Your task to perform on an android device: star an email in the gmail app Image 0: 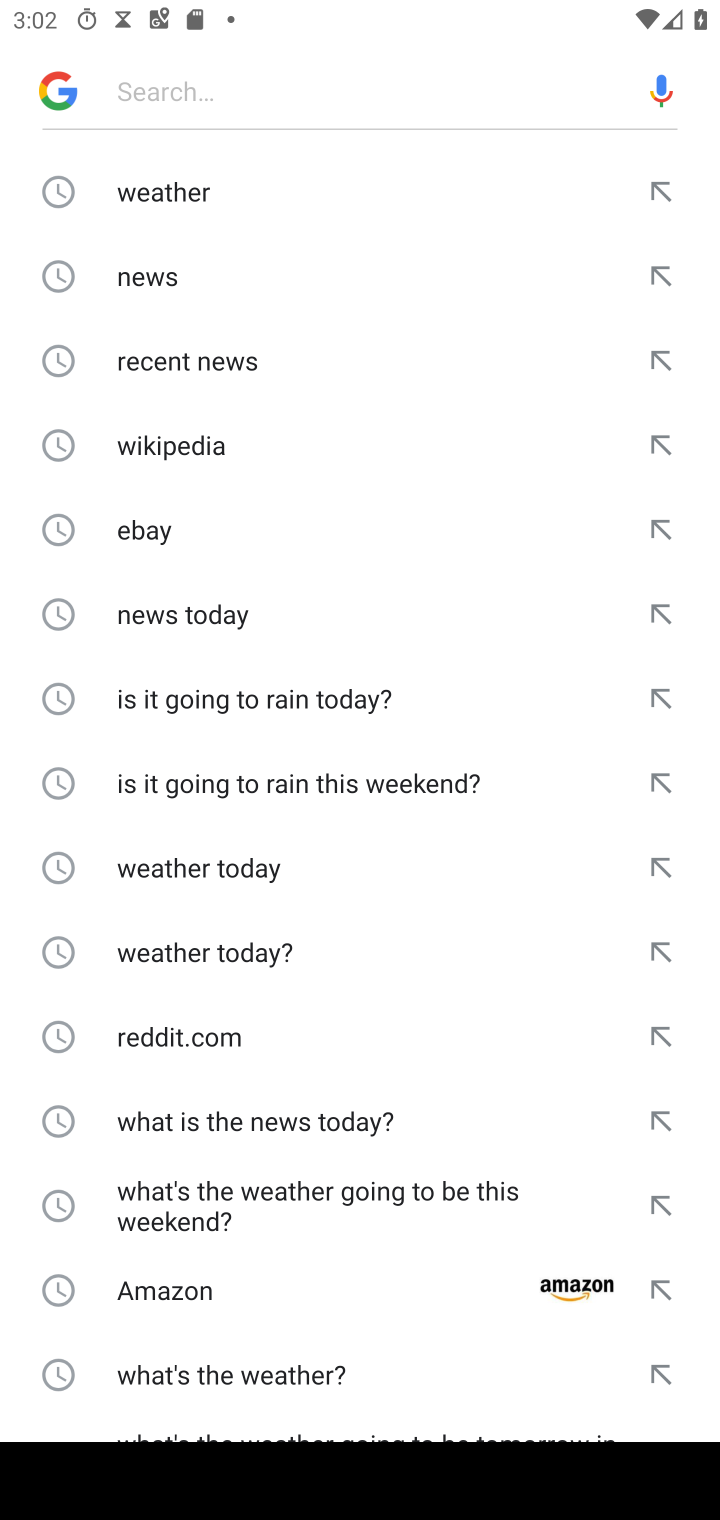
Step 0: press home button
Your task to perform on an android device: star an email in the gmail app Image 1: 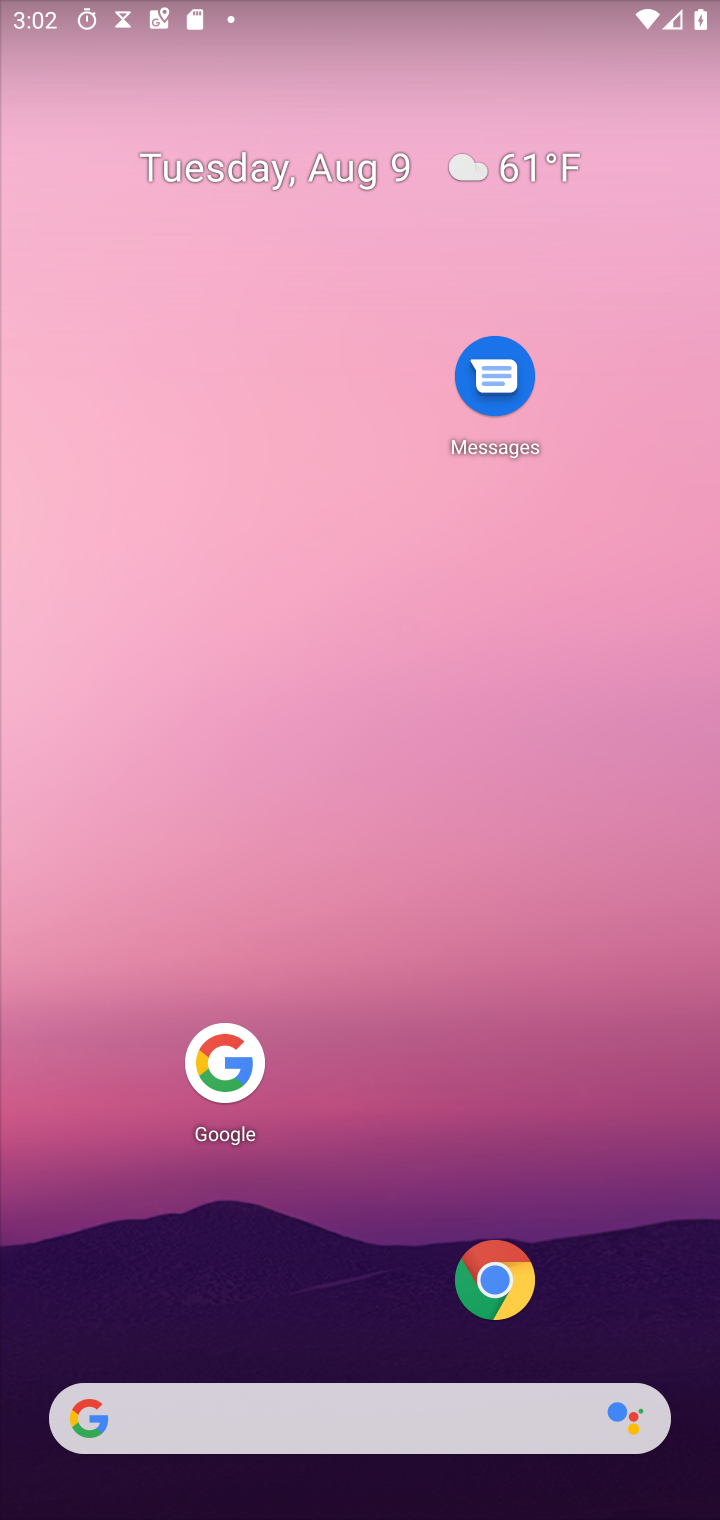
Step 1: drag from (358, 1420) to (516, 297)
Your task to perform on an android device: star an email in the gmail app Image 2: 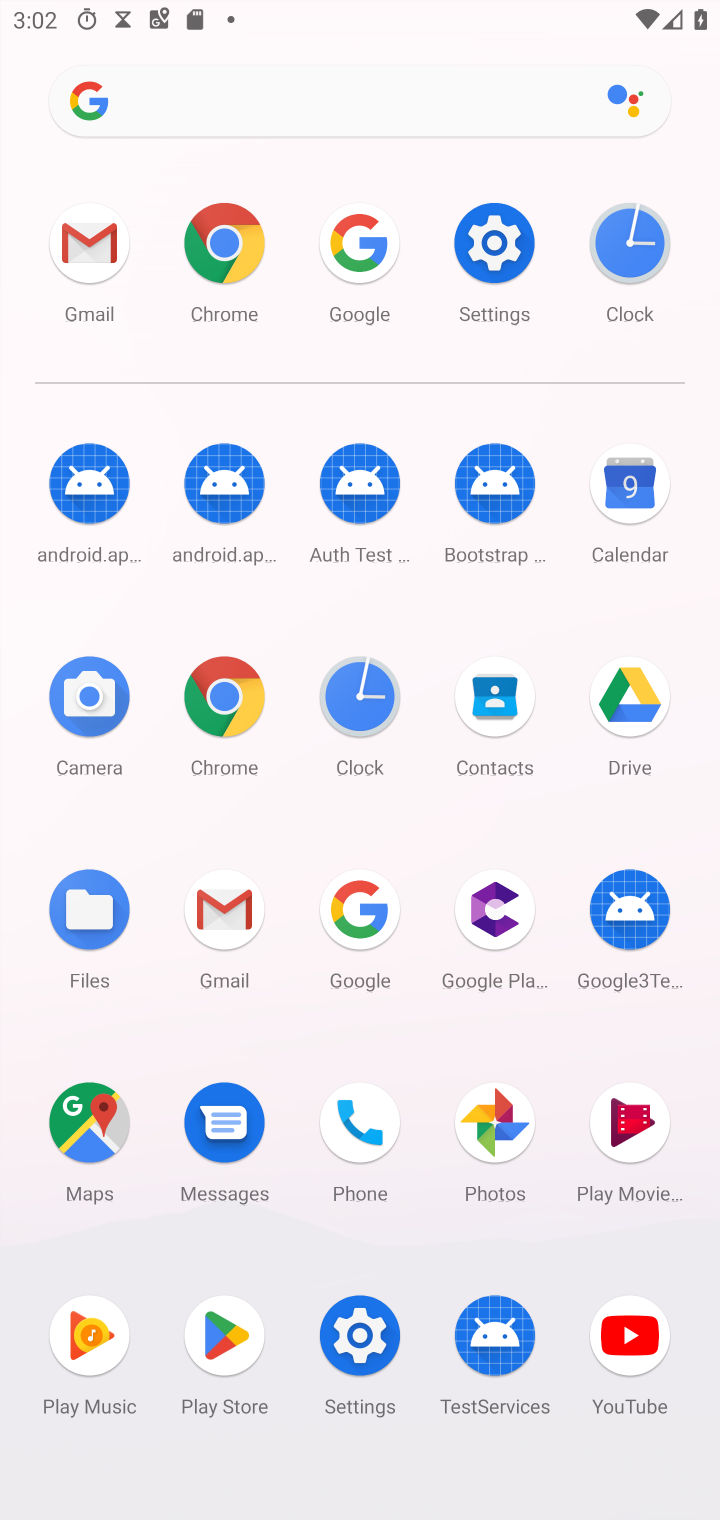
Step 2: click (89, 249)
Your task to perform on an android device: star an email in the gmail app Image 3: 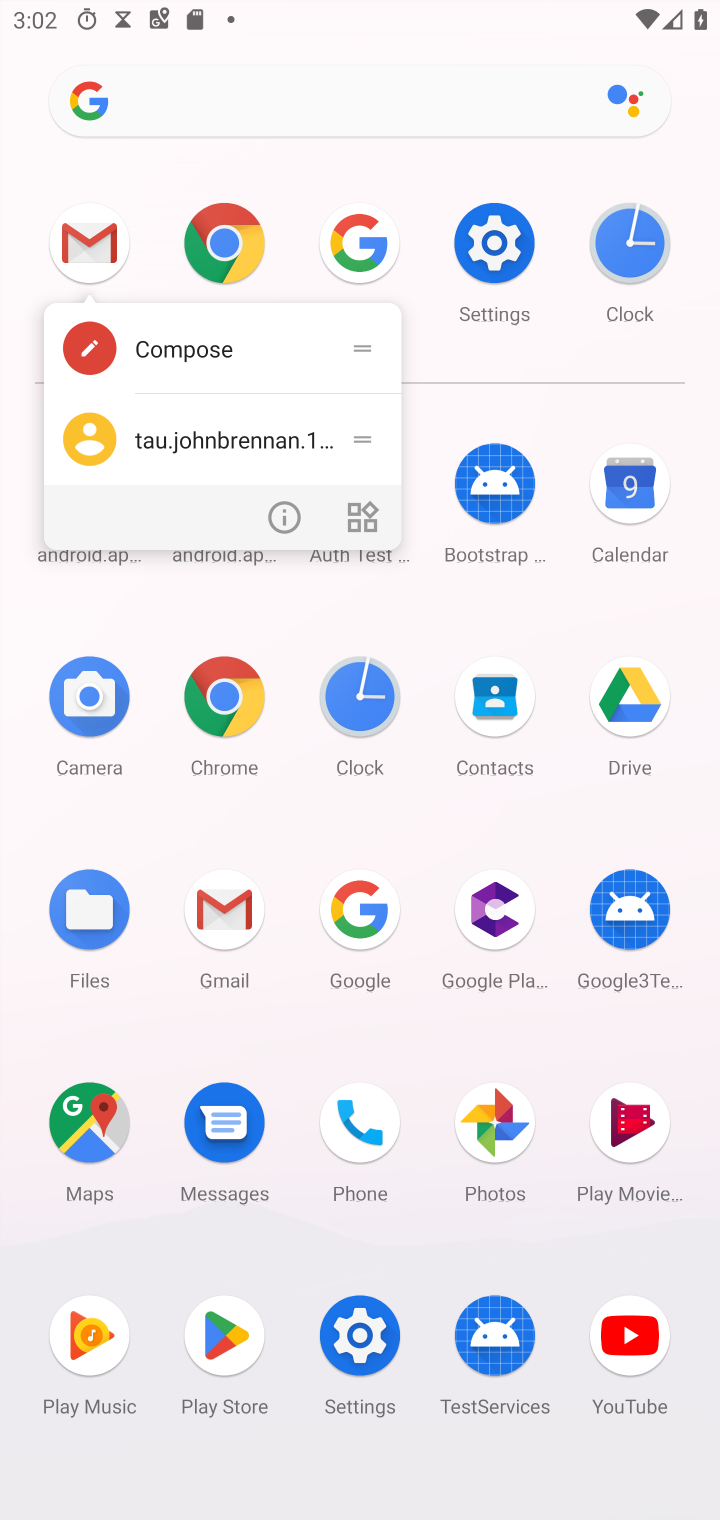
Step 3: click (89, 251)
Your task to perform on an android device: star an email in the gmail app Image 4: 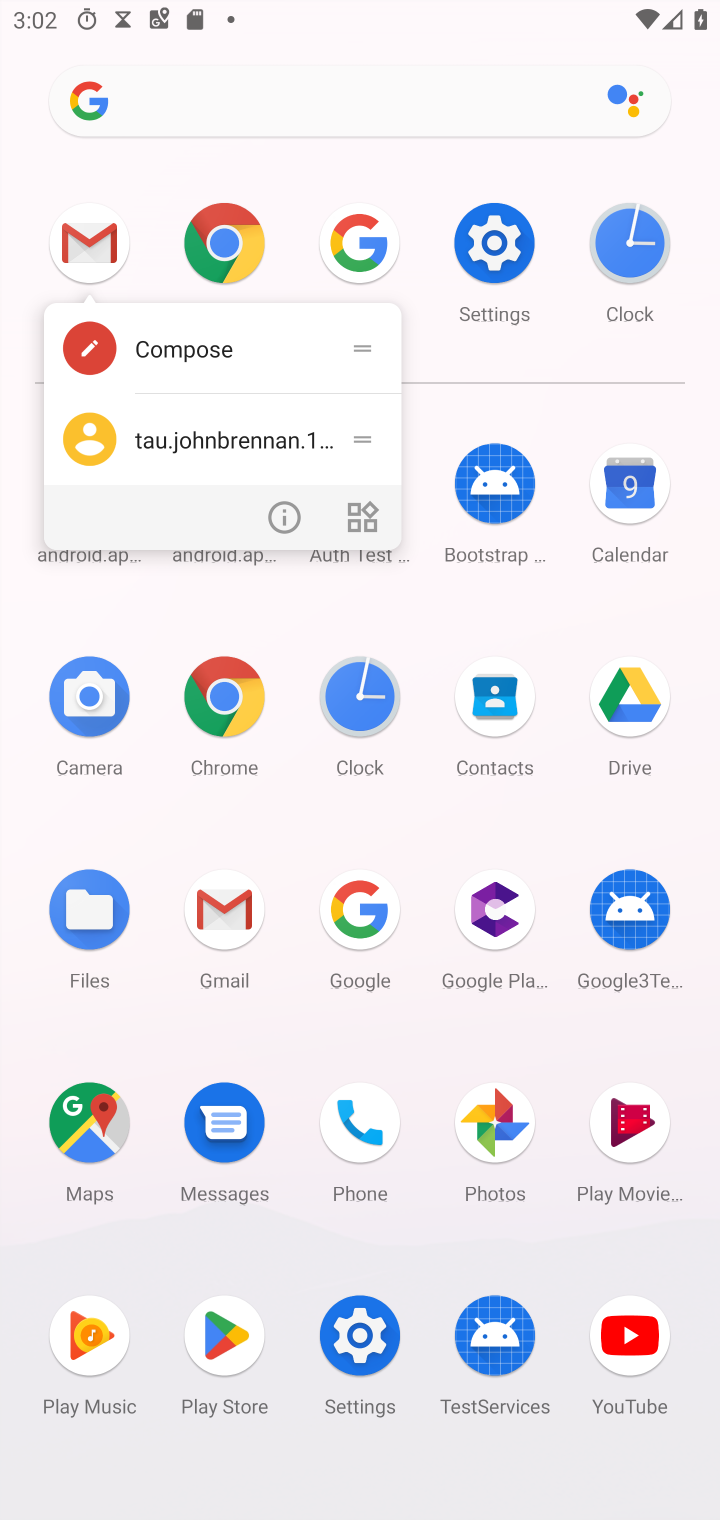
Step 4: click (78, 255)
Your task to perform on an android device: star an email in the gmail app Image 5: 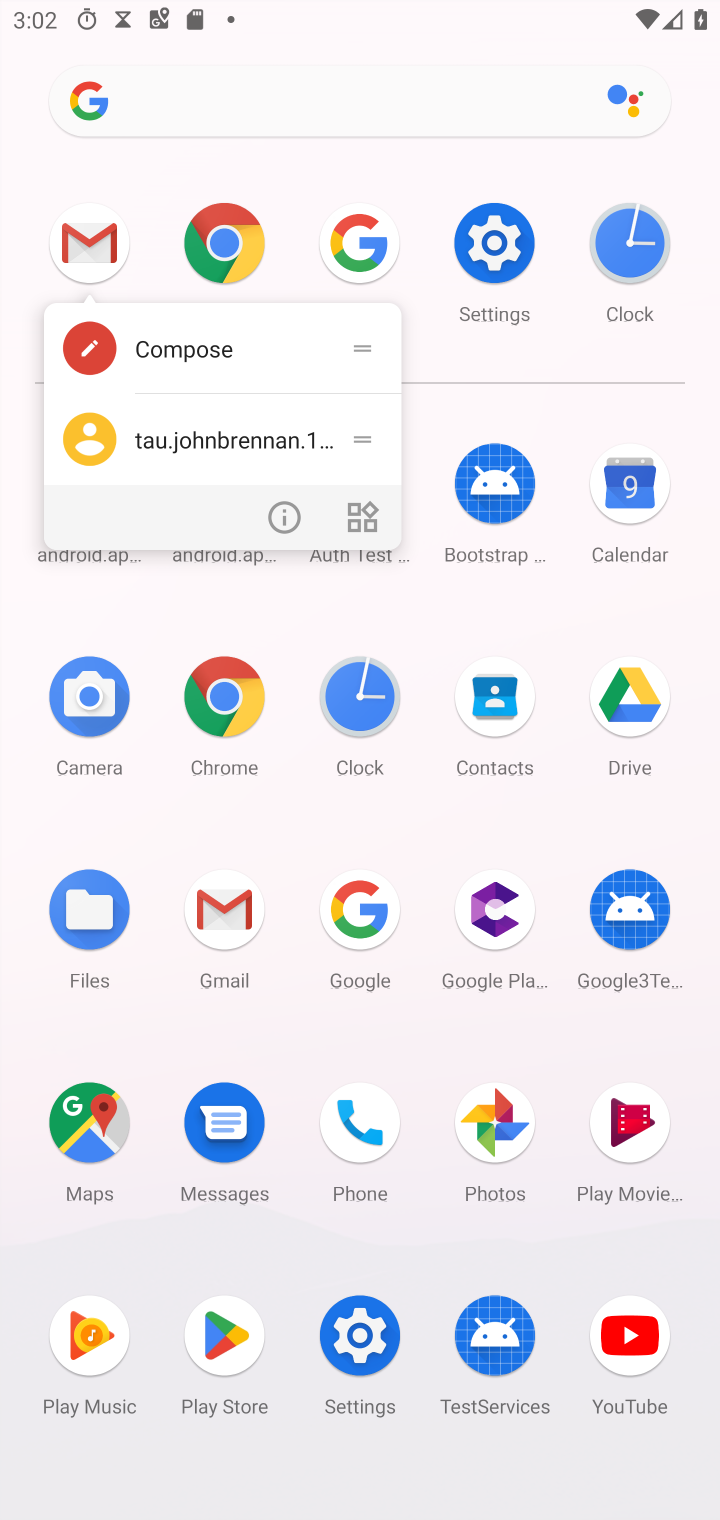
Step 5: click (91, 231)
Your task to perform on an android device: star an email in the gmail app Image 6: 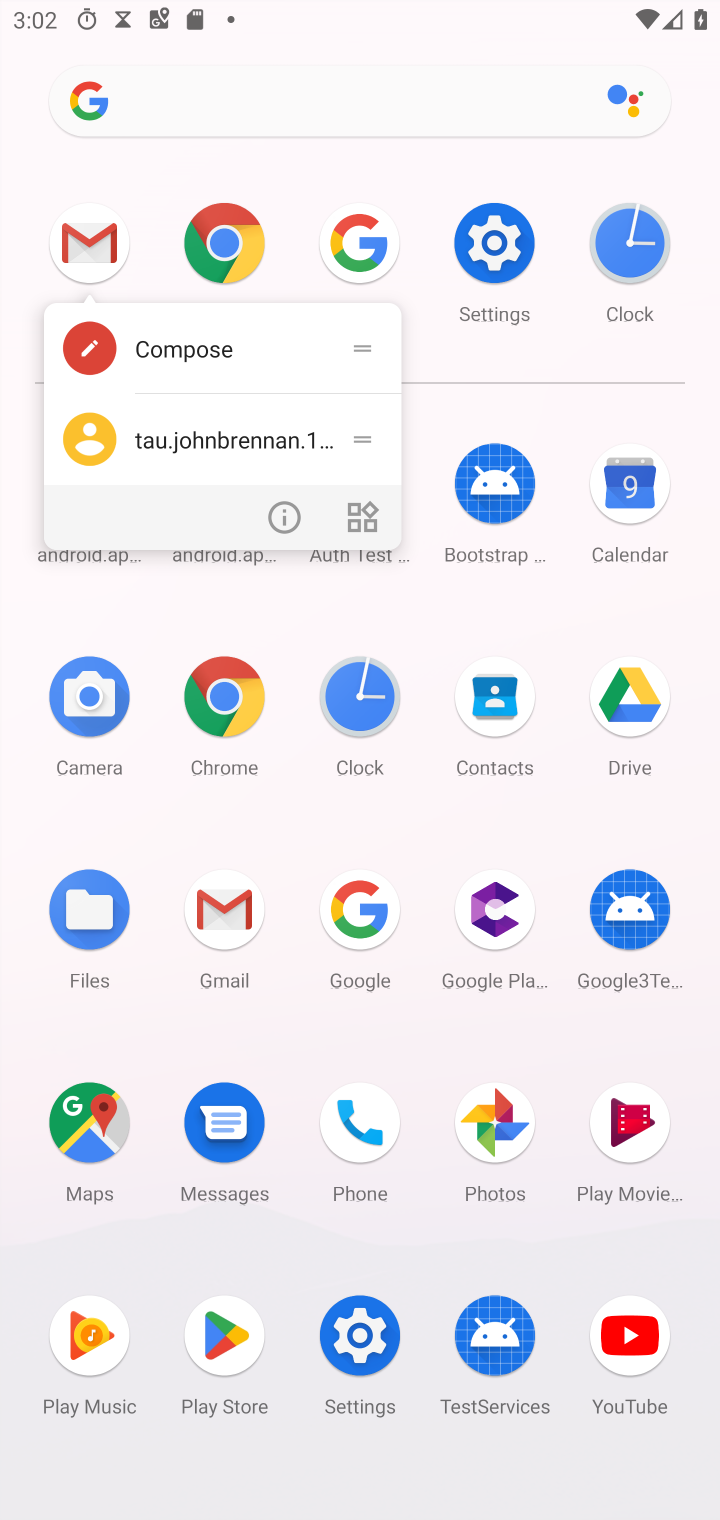
Step 6: click (91, 233)
Your task to perform on an android device: star an email in the gmail app Image 7: 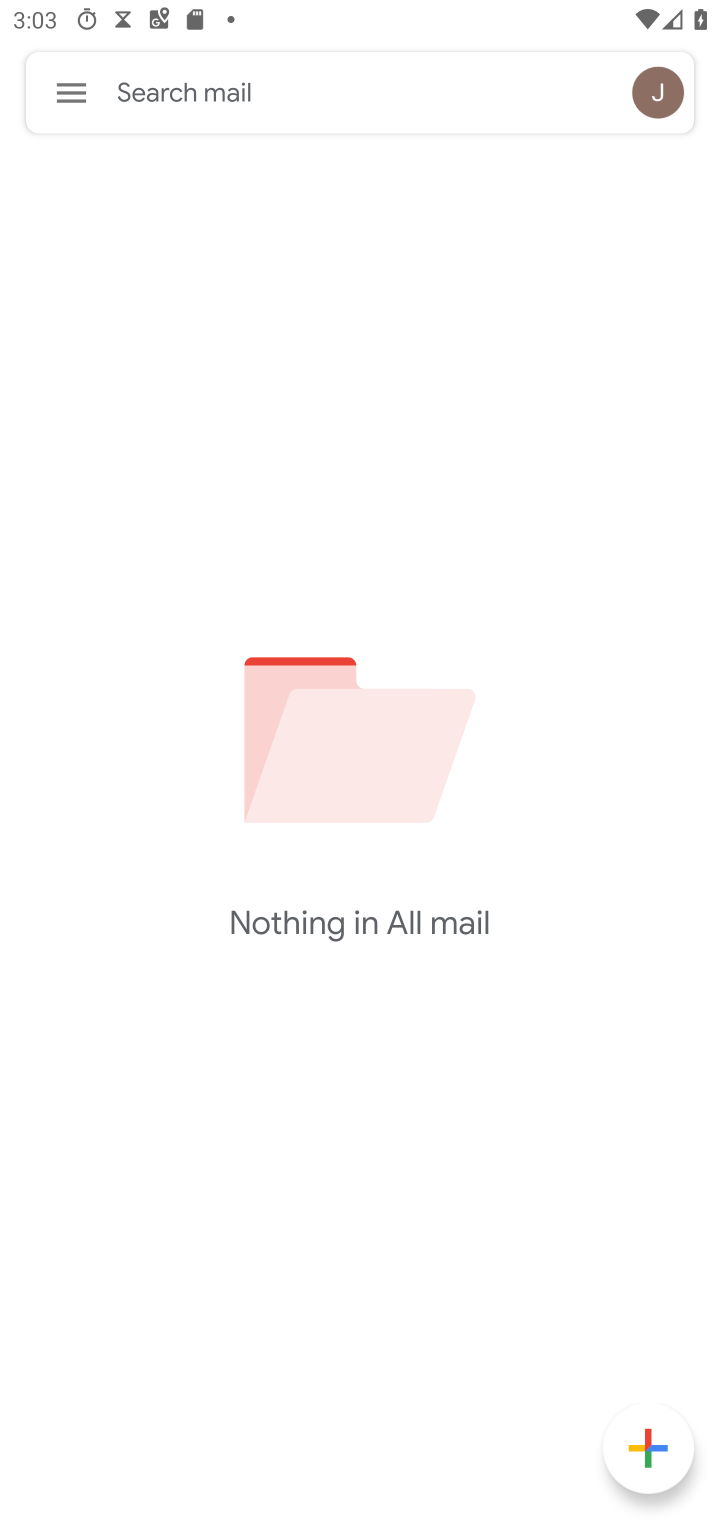
Step 7: task complete